Your task to perform on an android device: turn off wifi Image 0: 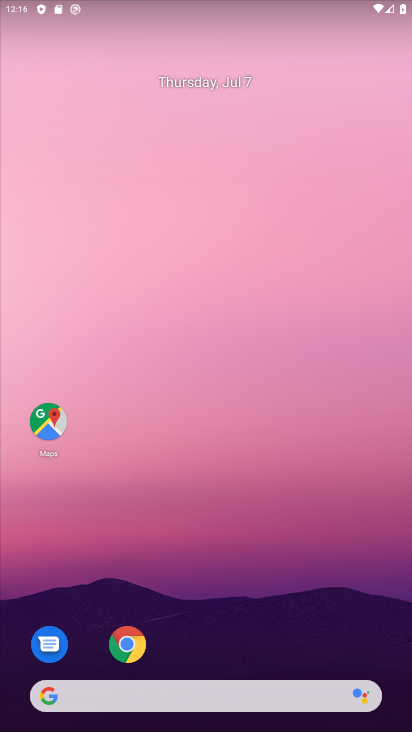
Step 0: click (282, 41)
Your task to perform on an android device: turn off wifi Image 1: 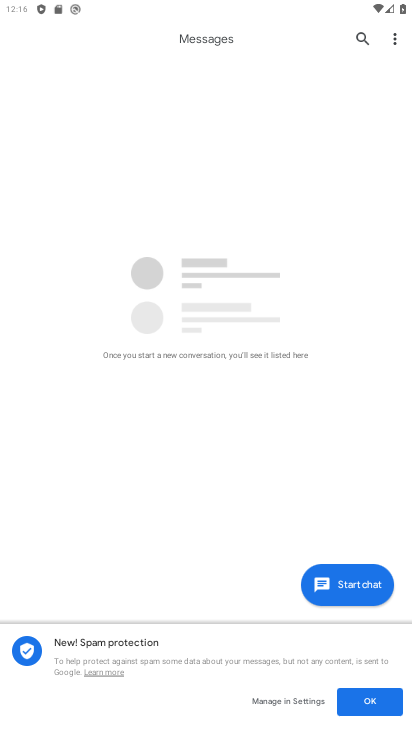
Step 1: press back button
Your task to perform on an android device: turn off wifi Image 2: 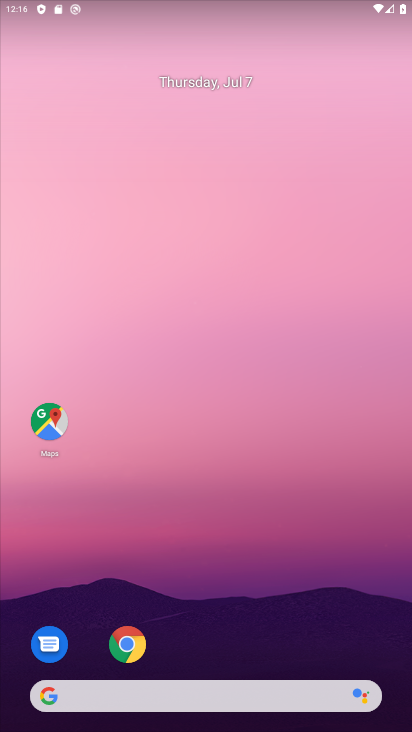
Step 2: drag from (392, 639) to (320, 49)
Your task to perform on an android device: turn off wifi Image 3: 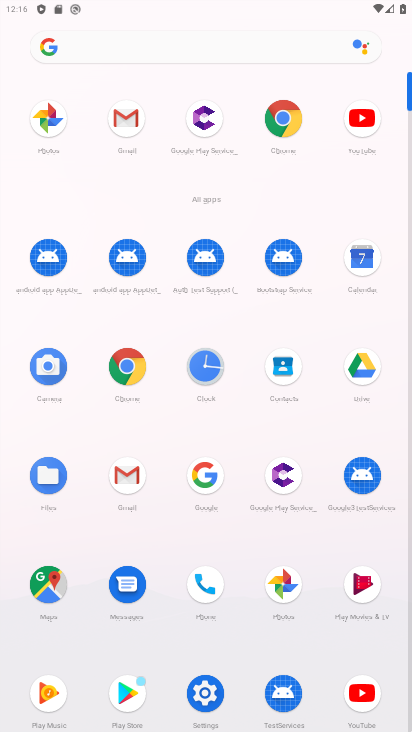
Step 3: click (212, 688)
Your task to perform on an android device: turn off wifi Image 4: 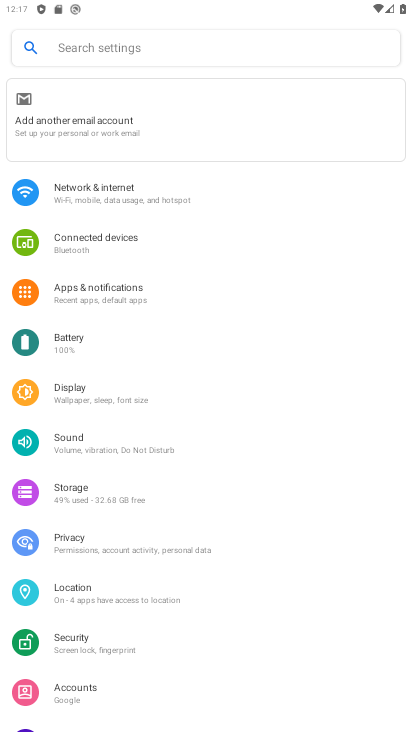
Step 4: drag from (289, 282) to (282, 530)
Your task to perform on an android device: turn off wifi Image 5: 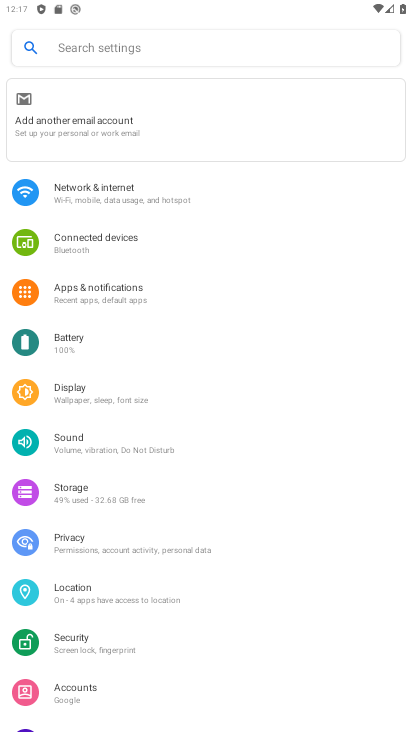
Step 5: click (97, 184)
Your task to perform on an android device: turn off wifi Image 6: 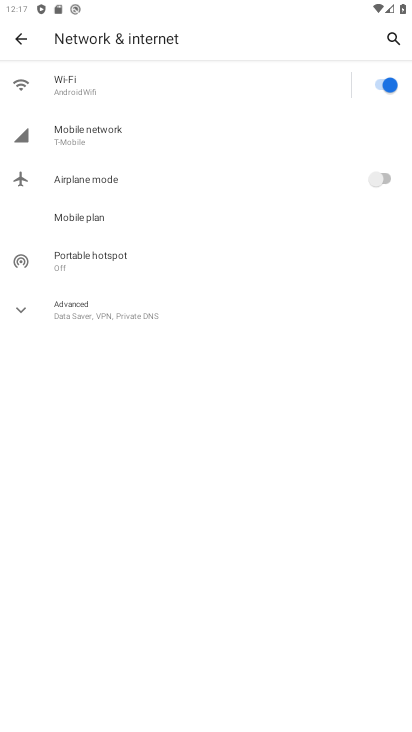
Step 6: click (377, 76)
Your task to perform on an android device: turn off wifi Image 7: 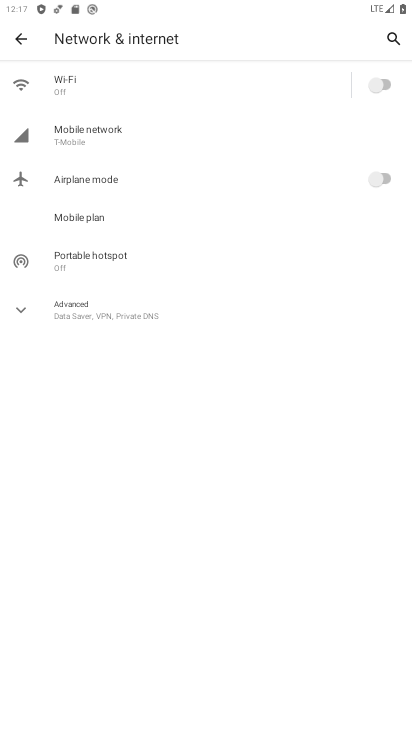
Step 7: task complete